Your task to perform on an android device: check android version Image 0: 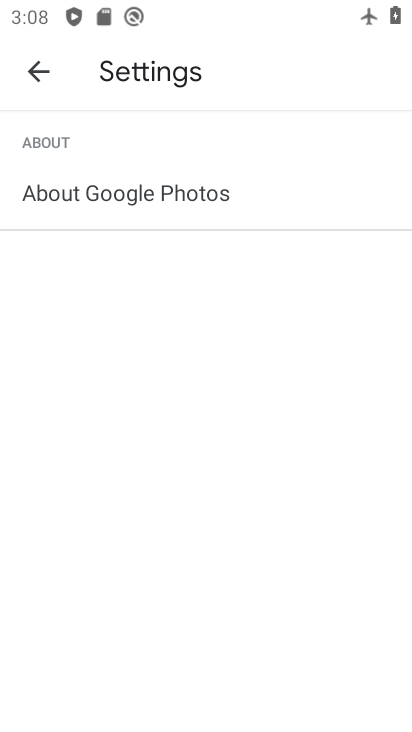
Step 0: press home button
Your task to perform on an android device: check android version Image 1: 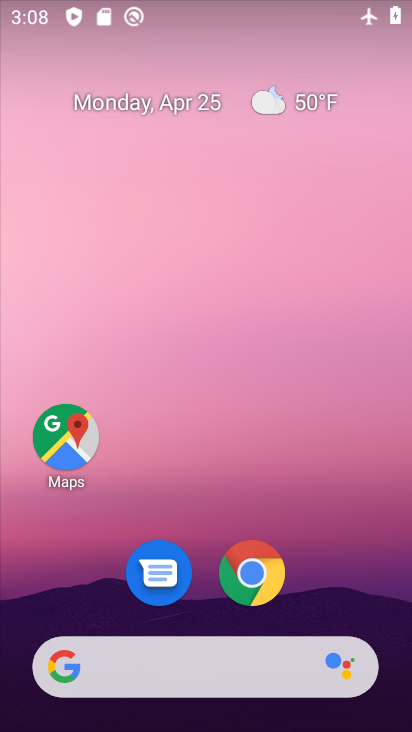
Step 1: drag from (376, 509) to (315, 15)
Your task to perform on an android device: check android version Image 2: 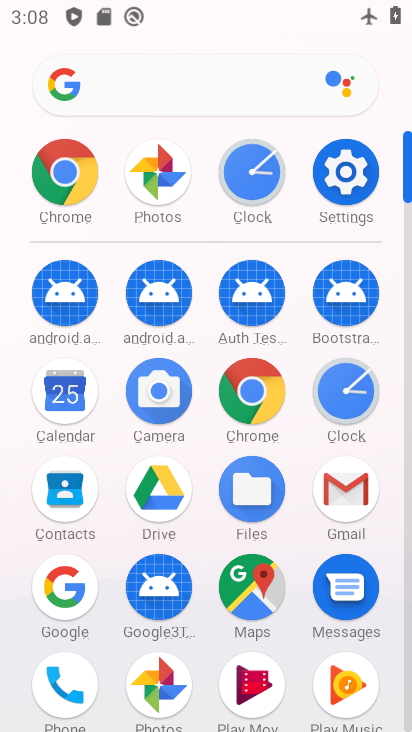
Step 2: click (363, 154)
Your task to perform on an android device: check android version Image 3: 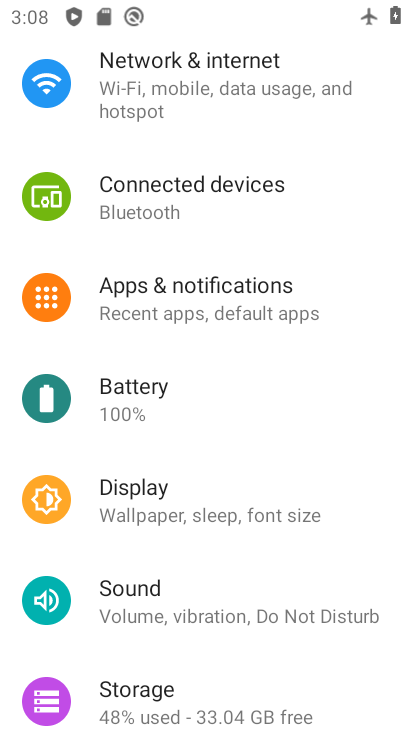
Step 3: drag from (320, 236) to (360, 583)
Your task to perform on an android device: check android version Image 4: 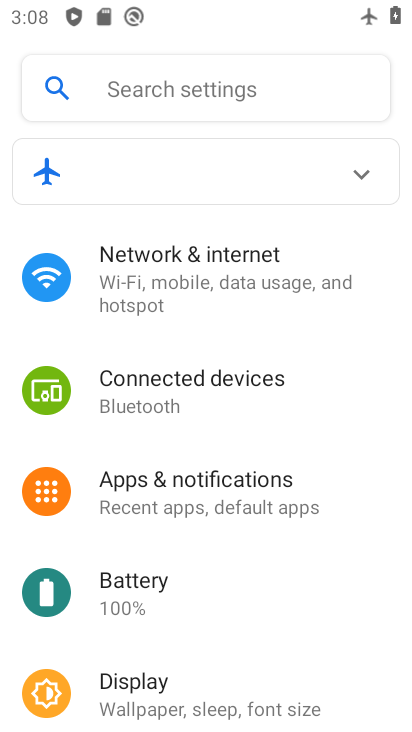
Step 4: drag from (243, 605) to (223, 263)
Your task to perform on an android device: check android version Image 5: 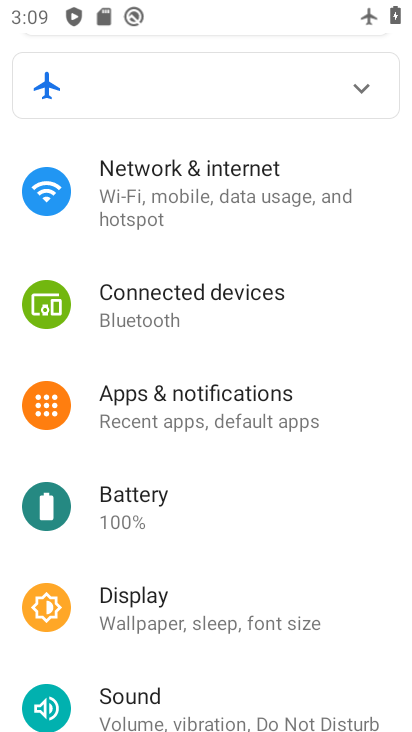
Step 5: drag from (272, 582) to (256, 119)
Your task to perform on an android device: check android version Image 6: 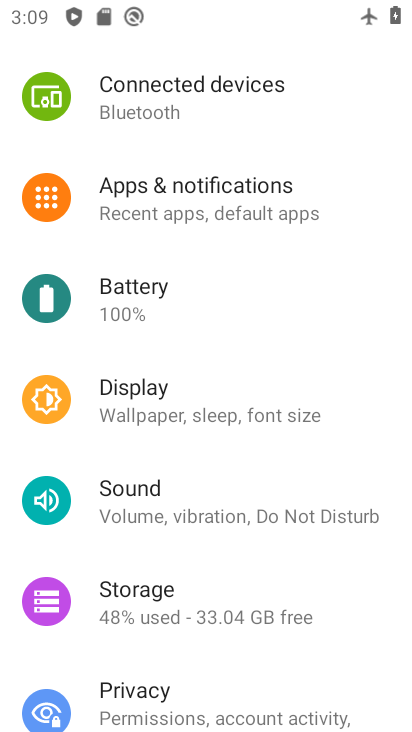
Step 6: drag from (255, 457) to (223, 85)
Your task to perform on an android device: check android version Image 7: 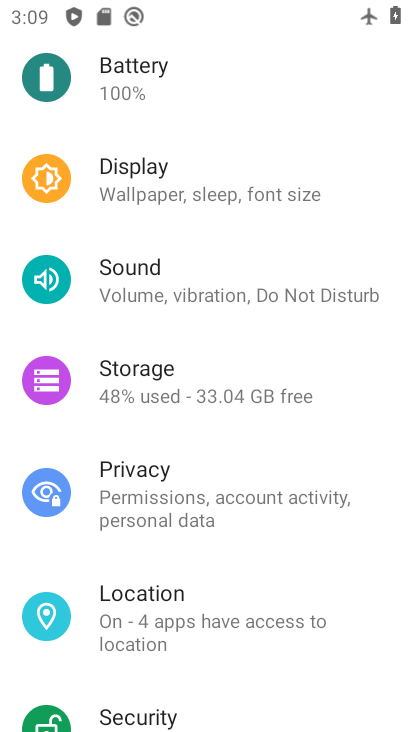
Step 7: drag from (200, 448) to (175, 74)
Your task to perform on an android device: check android version Image 8: 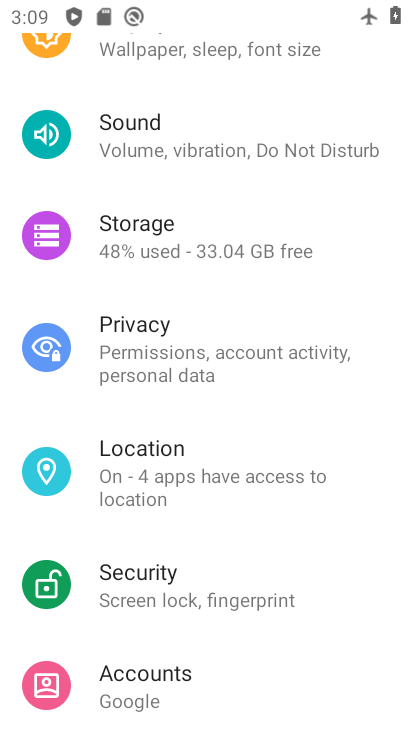
Step 8: drag from (206, 619) to (244, 129)
Your task to perform on an android device: check android version Image 9: 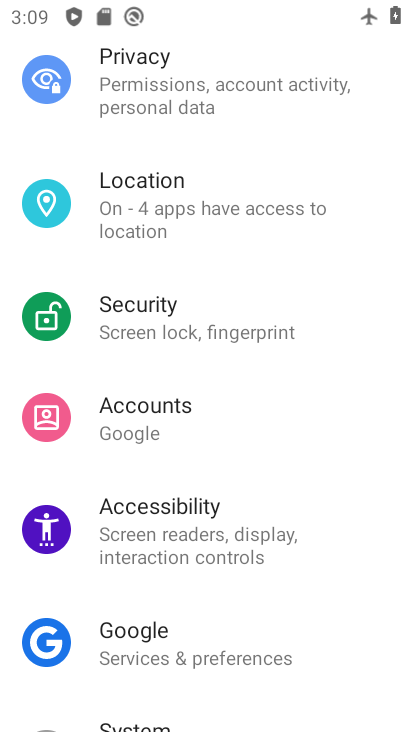
Step 9: drag from (226, 531) to (287, 82)
Your task to perform on an android device: check android version Image 10: 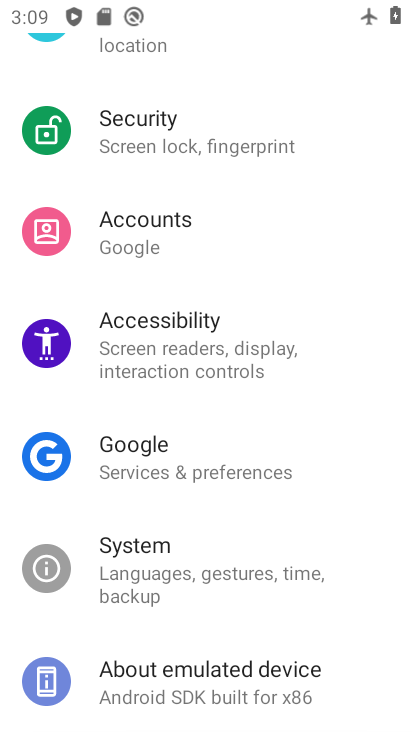
Step 10: drag from (299, 610) to (354, 104)
Your task to perform on an android device: check android version Image 11: 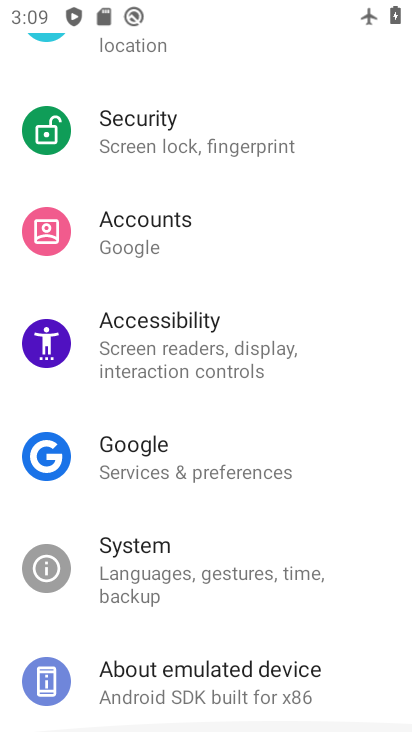
Step 11: drag from (281, 612) to (350, 149)
Your task to perform on an android device: check android version Image 12: 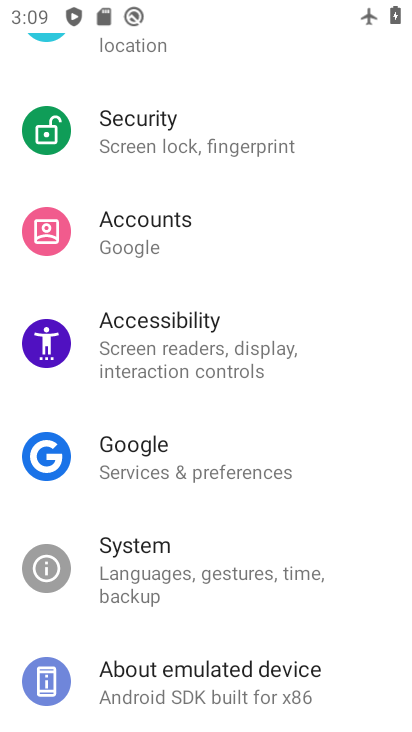
Step 12: click (188, 675)
Your task to perform on an android device: check android version Image 13: 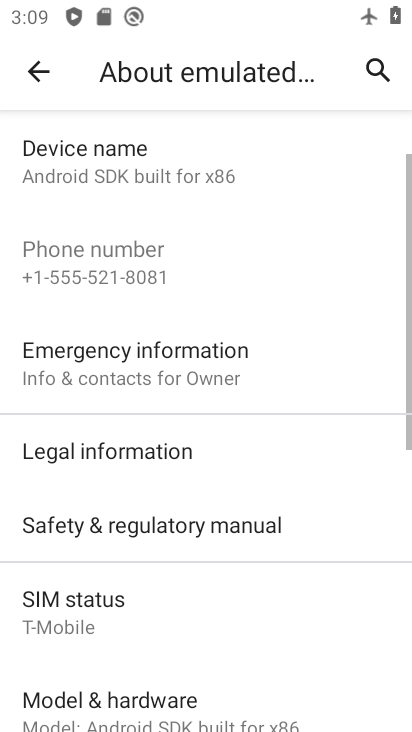
Step 13: drag from (228, 560) to (241, 165)
Your task to perform on an android device: check android version Image 14: 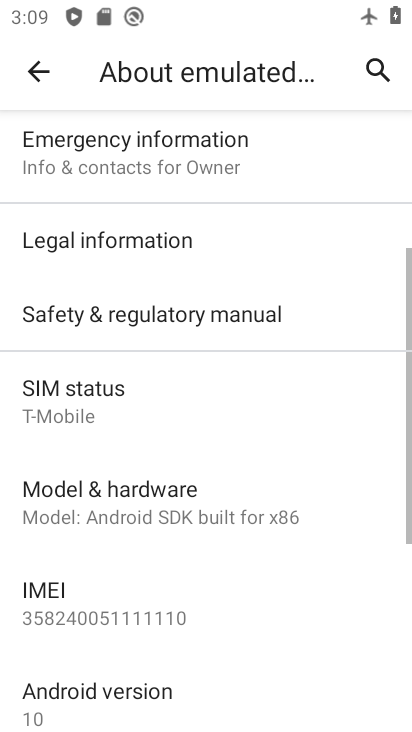
Step 14: drag from (270, 652) to (371, 168)
Your task to perform on an android device: check android version Image 15: 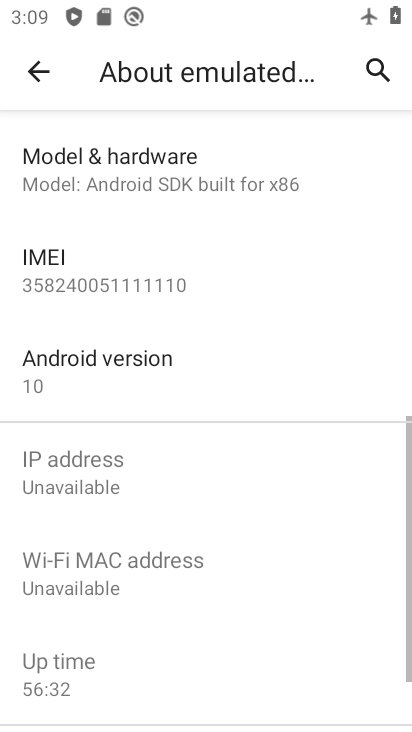
Step 15: click (123, 346)
Your task to perform on an android device: check android version Image 16: 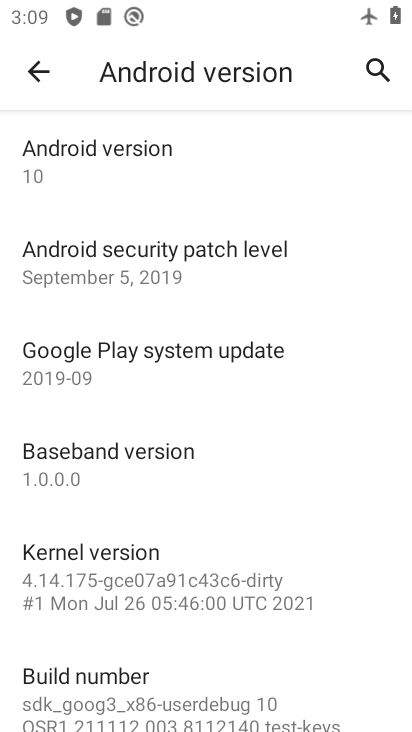
Step 16: task complete